Your task to perform on an android device: When is my next meeting? Image 0: 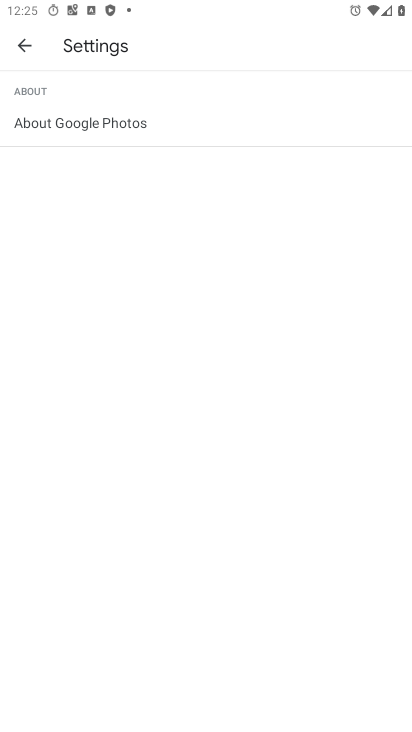
Step 0: press home button
Your task to perform on an android device: When is my next meeting? Image 1: 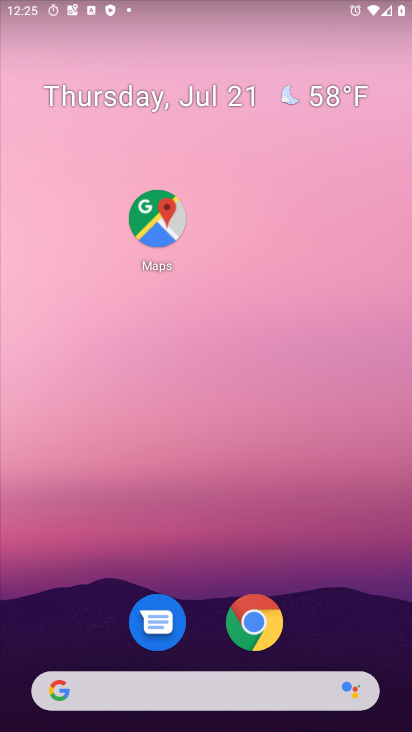
Step 1: drag from (14, 683) to (164, 288)
Your task to perform on an android device: When is my next meeting? Image 2: 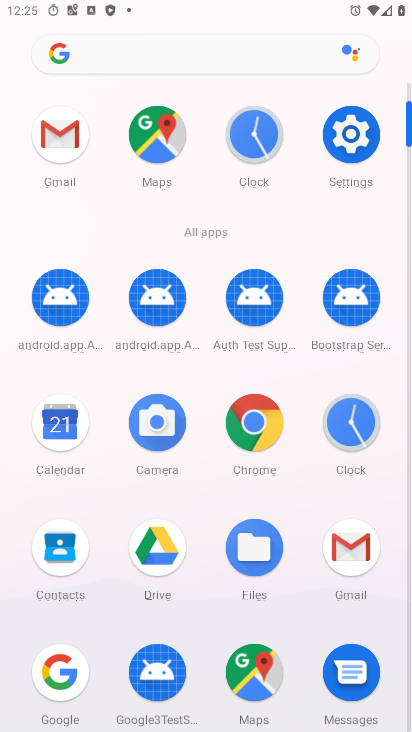
Step 2: drag from (129, 606) to (176, 342)
Your task to perform on an android device: When is my next meeting? Image 3: 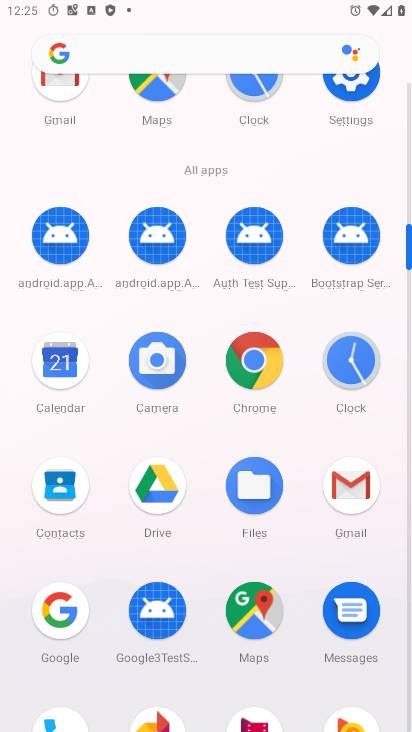
Step 3: drag from (183, 433) to (365, 37)
Your task to perform on an android device: When is my next meeting? Image 4: 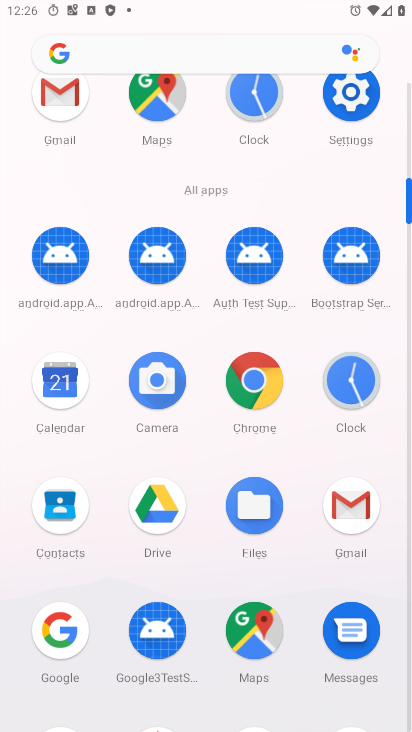
Step 4: click (51, 387)
Your task to perform on an android device: When is my next meeting? Image 5: 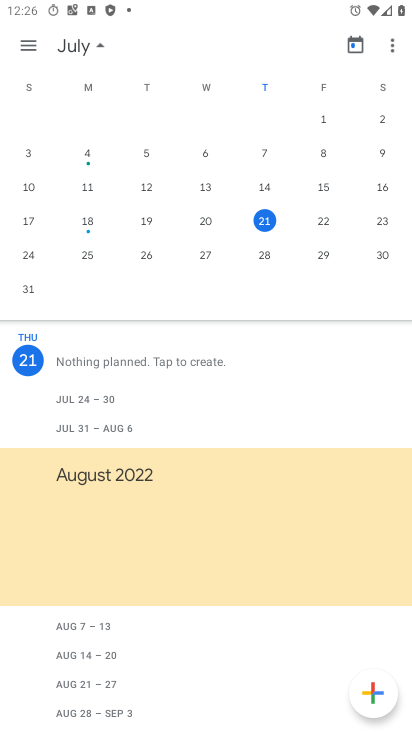
Step 5: task complete